Your task to perform on an android device: turn pop-ups on in chrome Image 0: 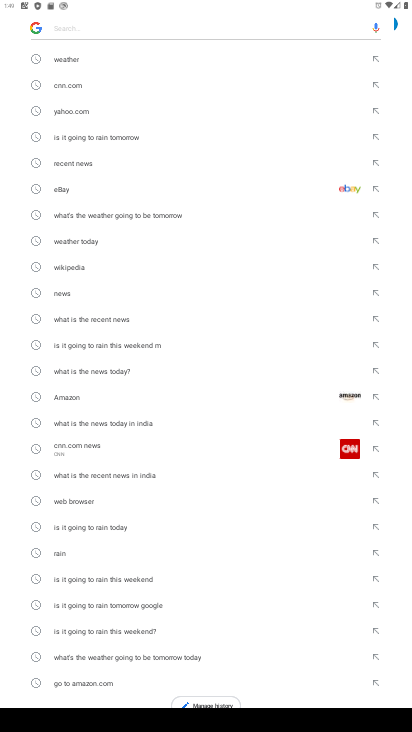
Step 0: press back button
Your task to perform on an android device: turn pop-ups on in chrome Image 1: 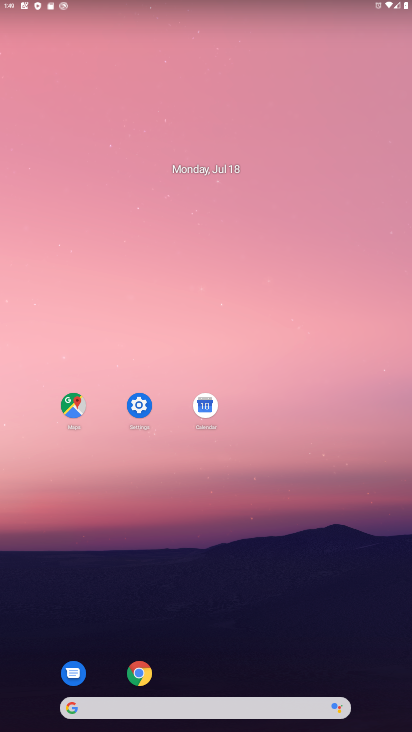
Step 1: click (140, 664)
Your task to perform on an android device: turn pop-ups on in chrome Image 2: 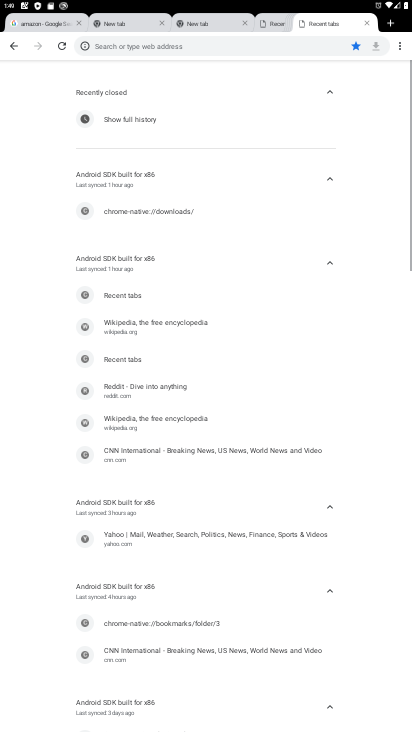
Step 2: click (398, 42)
Your task to perform on an android device: turn pop-ups on in chrome Image 3: 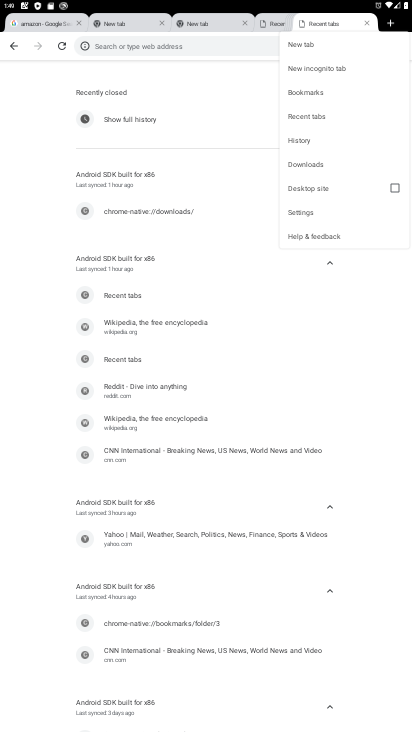
Step 3: click (290, 216)
Your task to perform on an android device: turn pop-ups on in chrome Image 4: 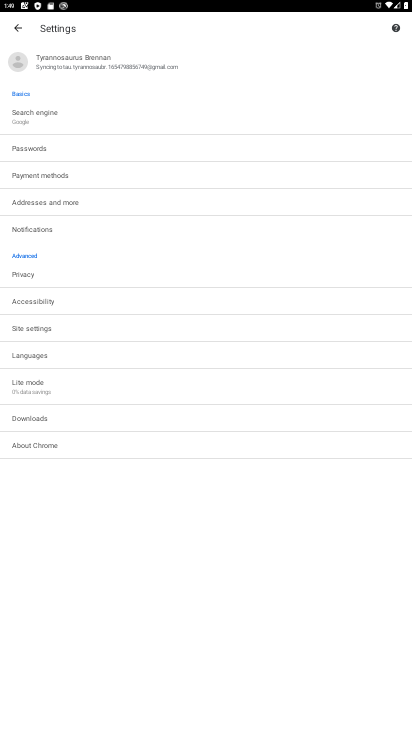
Step 4: click (28, 326)
Your task to perform on an android device: turn pop-ups on in chrome Image 5: 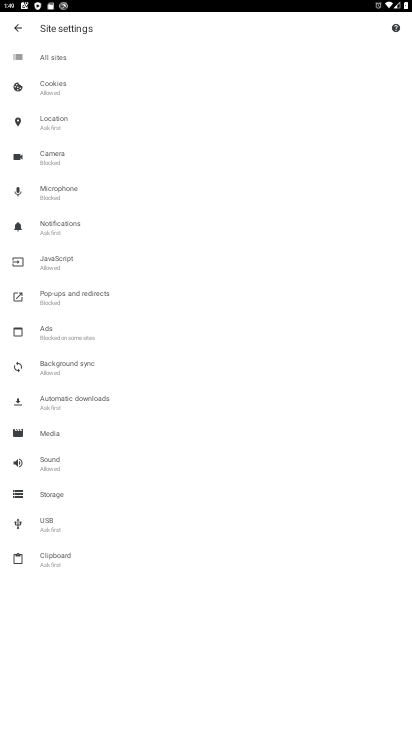
Step 5: click (65, 294)
Your task to perform on an android device: turn pop-ups on in chrome Image 6: 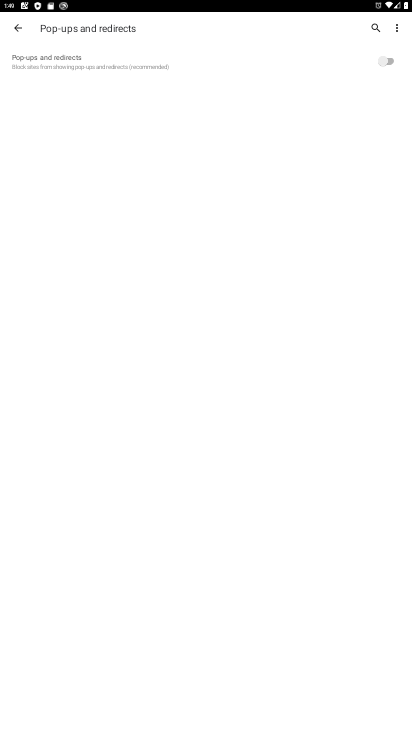
Step 6: click (389, 58)
Your task to perform on an android device: turn pop-ups on in chrome Image 7: 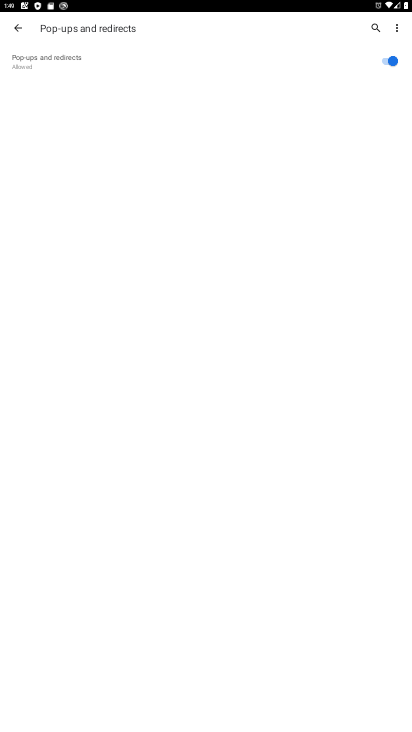
Step 7: task complete